Your task to perform on an android device: open app "TextNow: Call + Text Unlimited" (install if not already installed) Image 0: 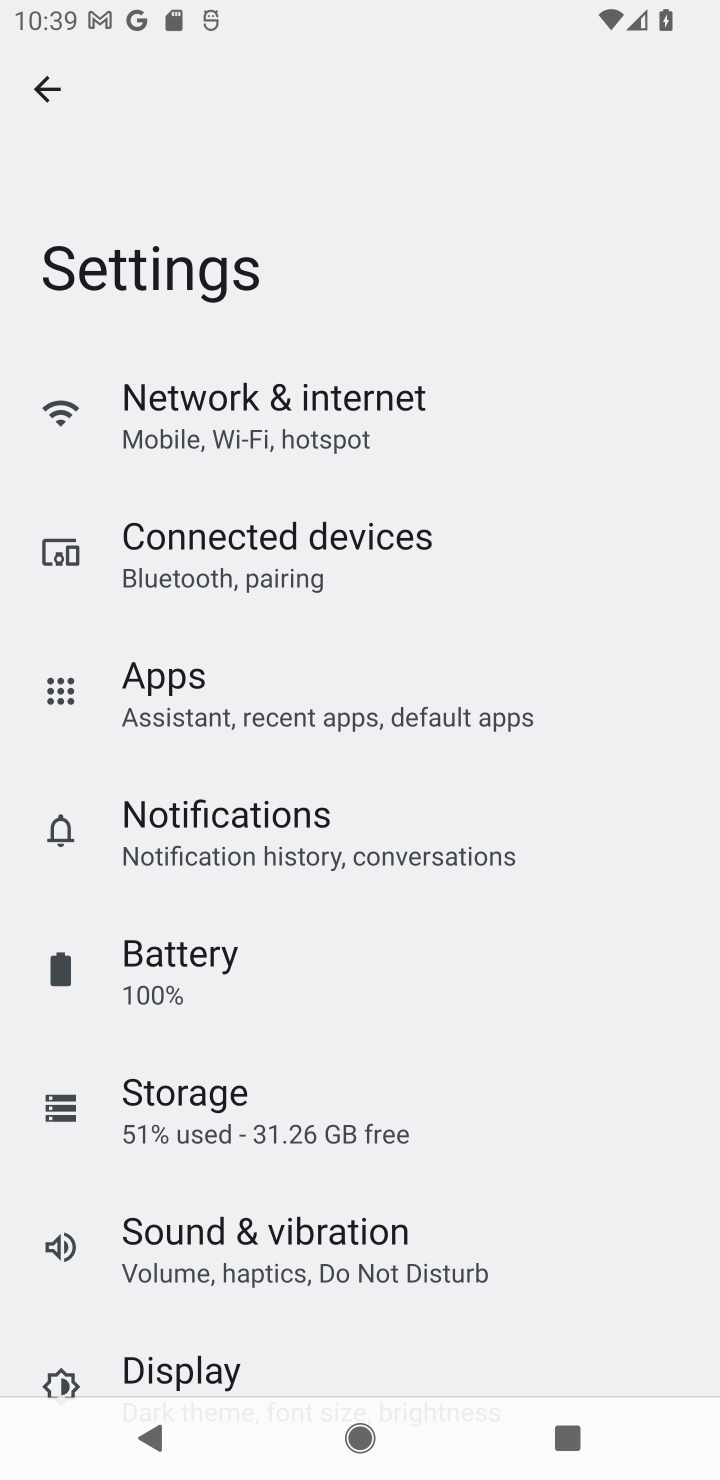
Step 0: press home button
Your task to perform on an android device: open app "TextNow: Call + Text Unlimited" (install if not already installed) Image 1: 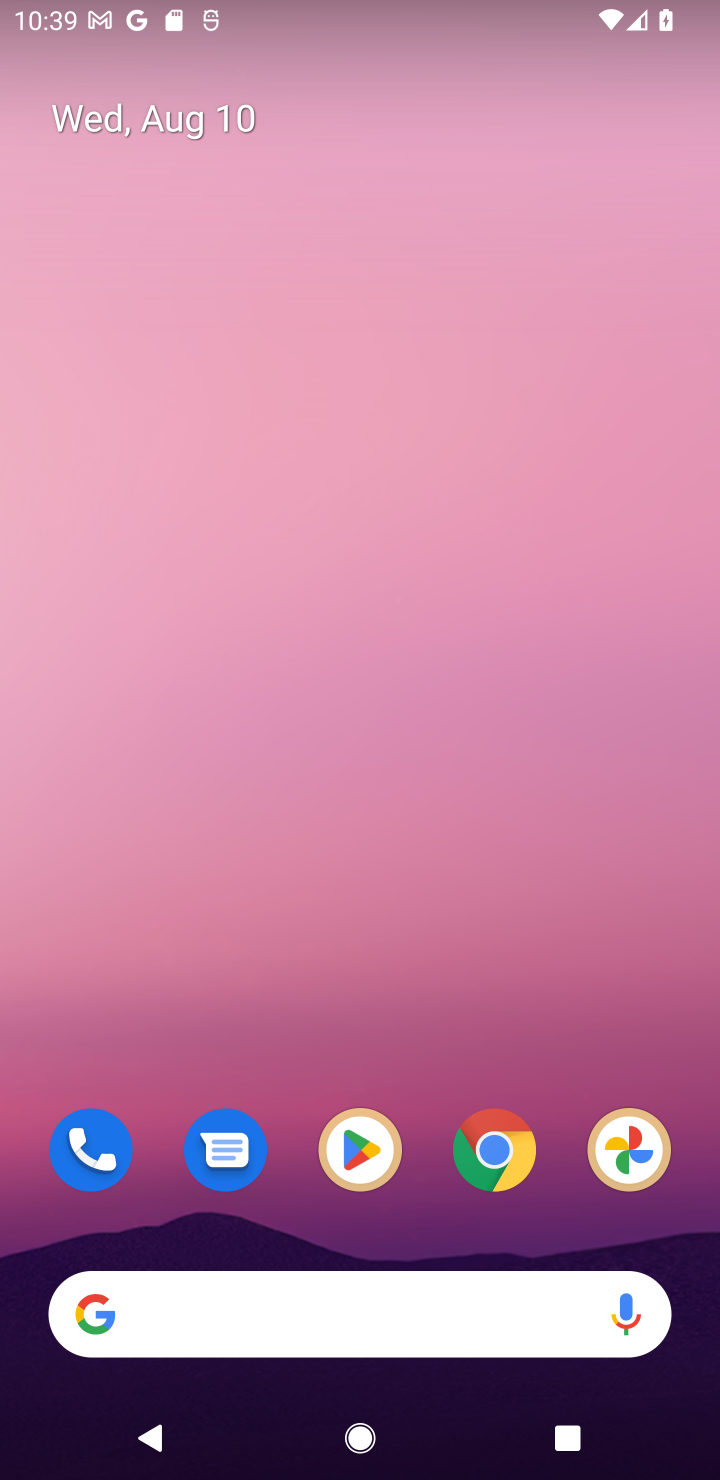
Step 1: click (358, 1140)
Your task to perform on an android device: open app "TextNow: Call + Text Unlimited" (install if not already installed) Image 2: 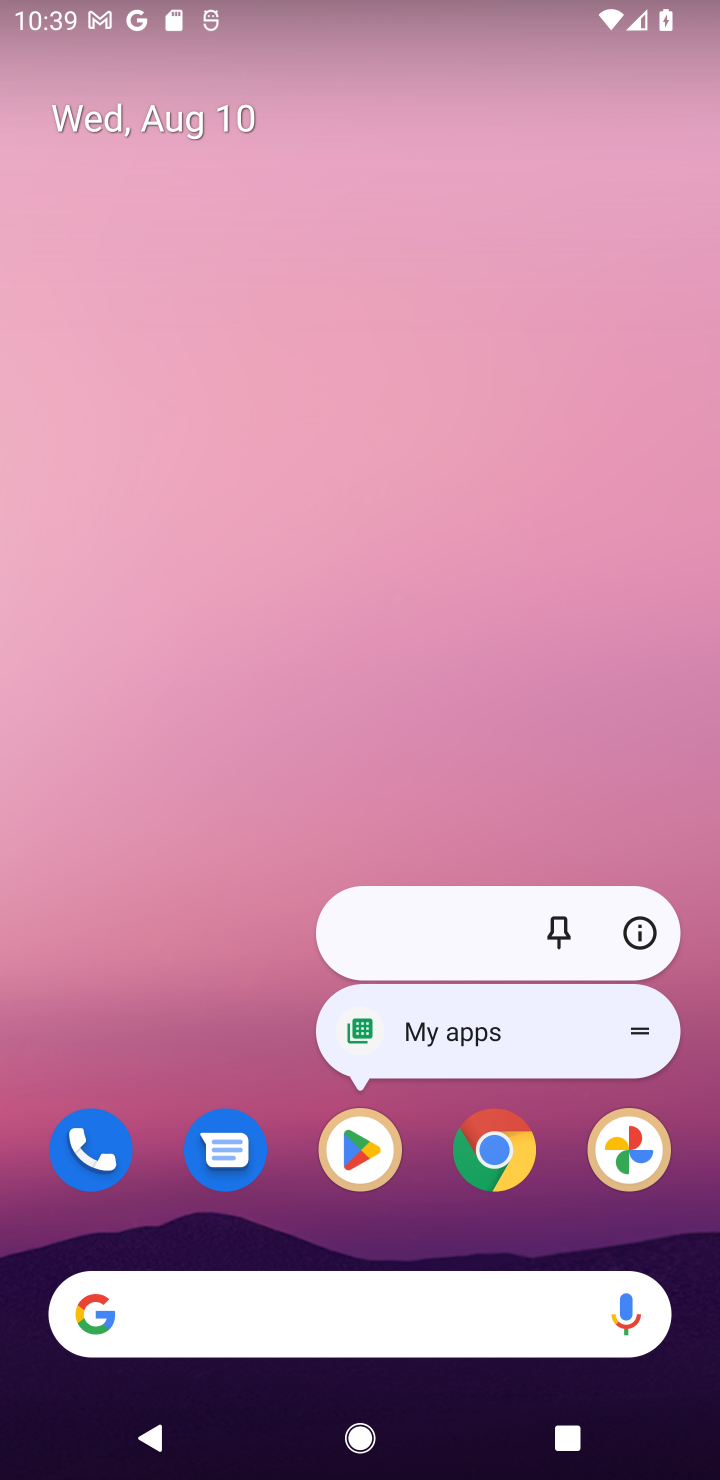
Step 2: click (358, 1140)
Your task to perform on an android device: open app "TextNow: Call + Text Unlimited" (install if not already installed) Image 3: 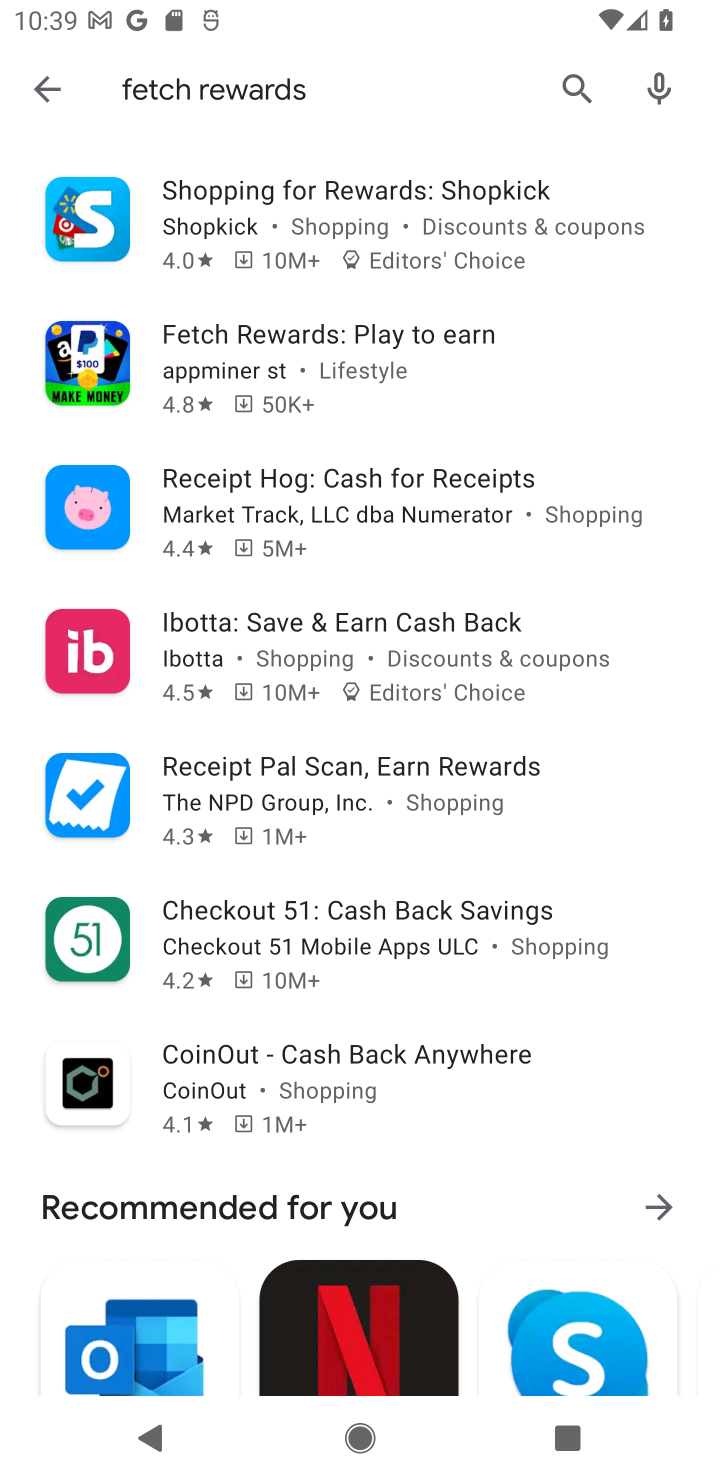
Step 3: click (571, 82)
Your task to perform on an android device: open app "TextNow: Call + Text Unlimited" (install if not already installed) Image 4: 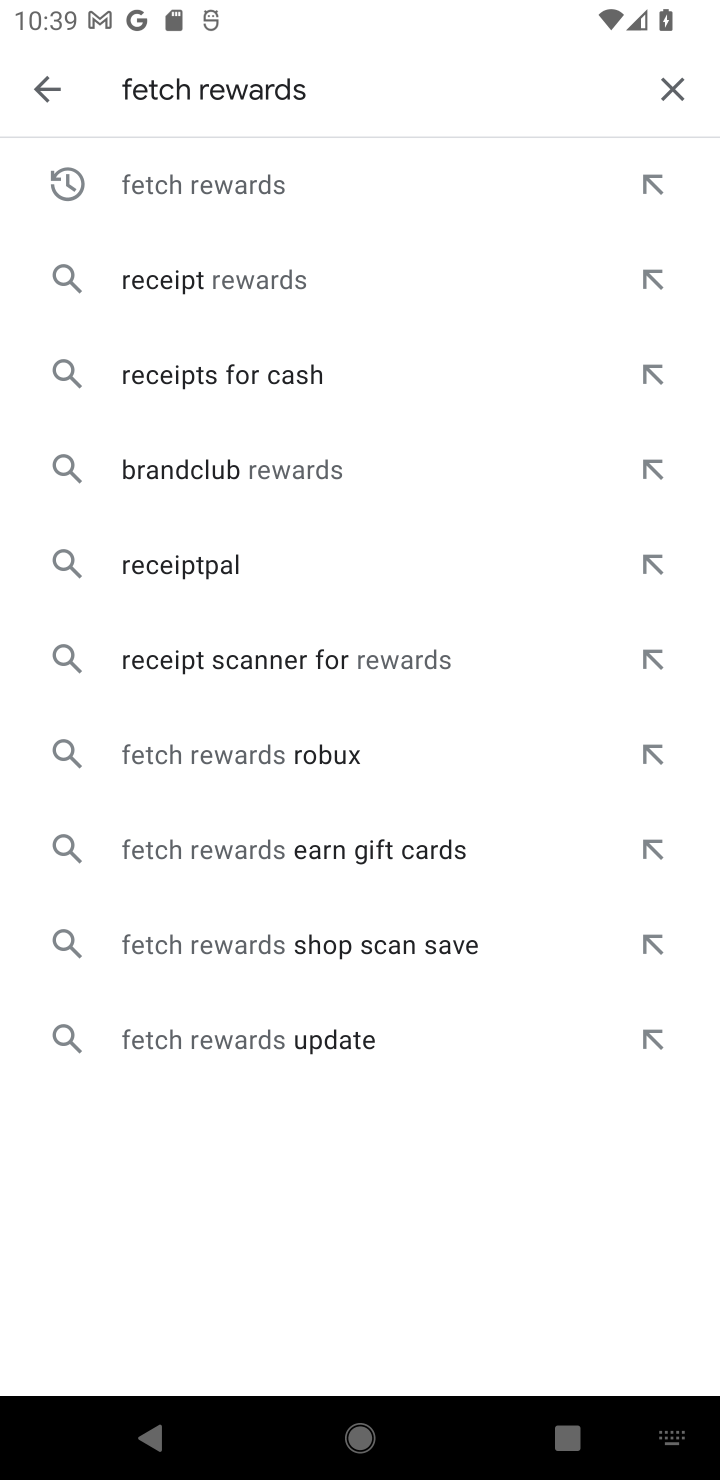
Step 4: click (659, 80)
Your task to perform on an android device: open app "TextNow: Call + Text Unlimited" (install if not already installed) Image 5: 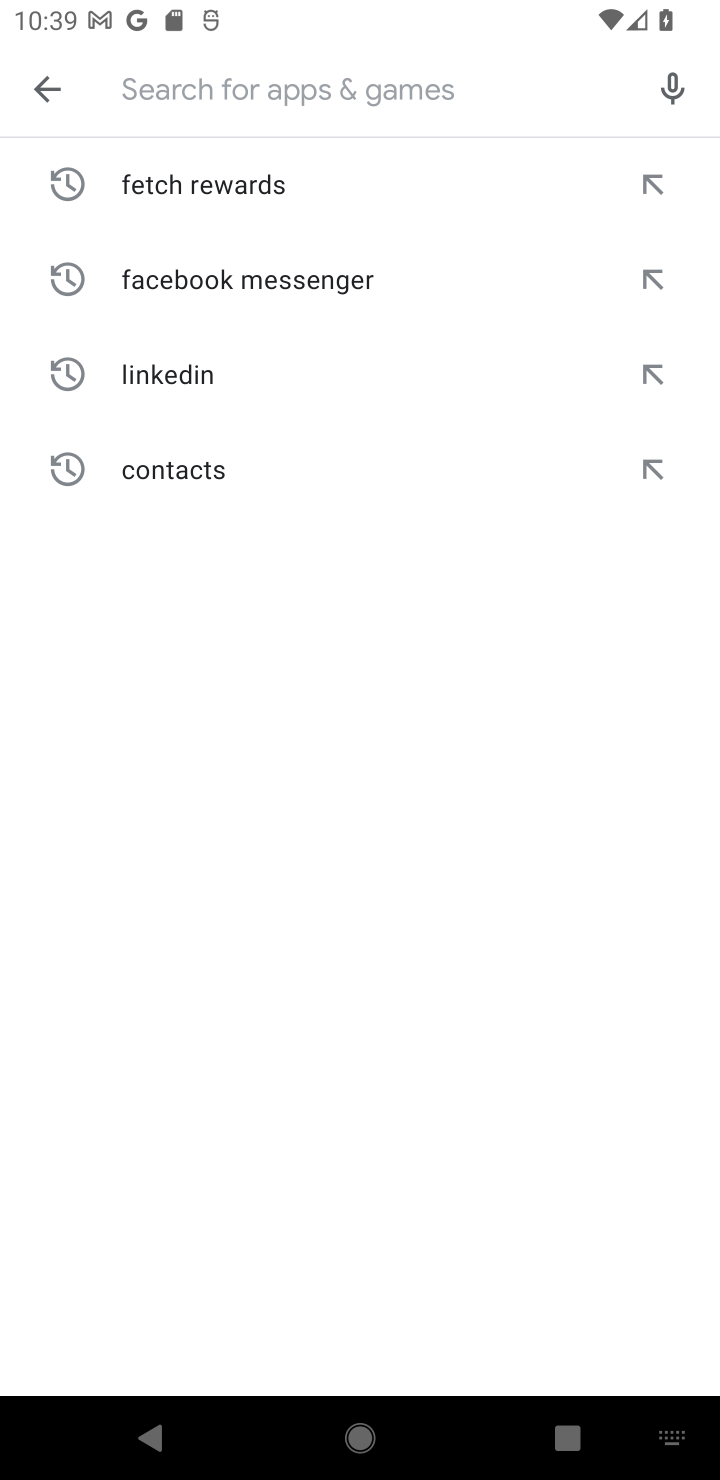
Step 5: type "TextNow: Call + Text Unlimited"
Your task to perform on an android device: open app "TextNow: Call + Text Unlimited" (install if not already installed) Image 6: 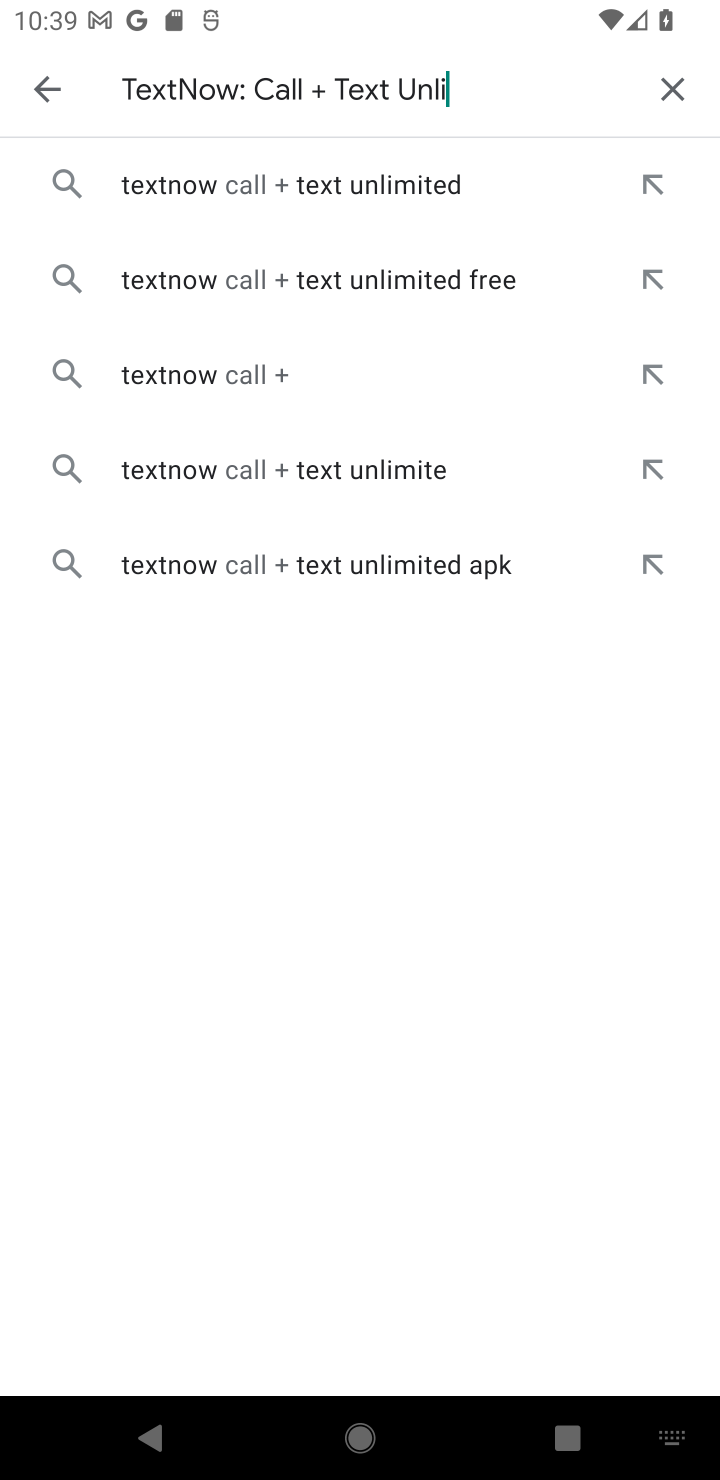
Step 6: type ""
Your task to perform on an android device: open app "TextNow: Call + Text Unlimited" (install if not already installed) Image 7: 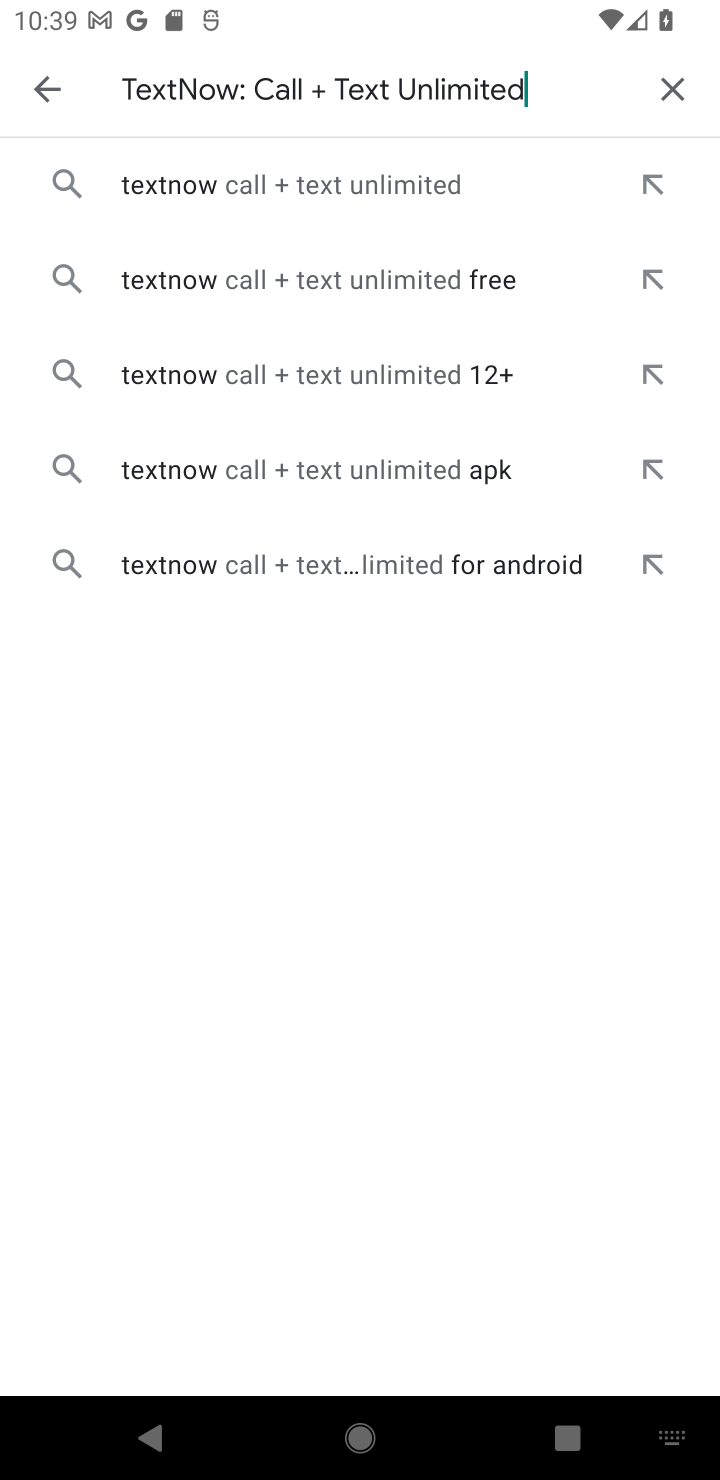
Step 7: click (277, 186)
Your task to perform on an android device: open app "TextNow: Call + Text Unlimited" (install if not already installed) Image 8: 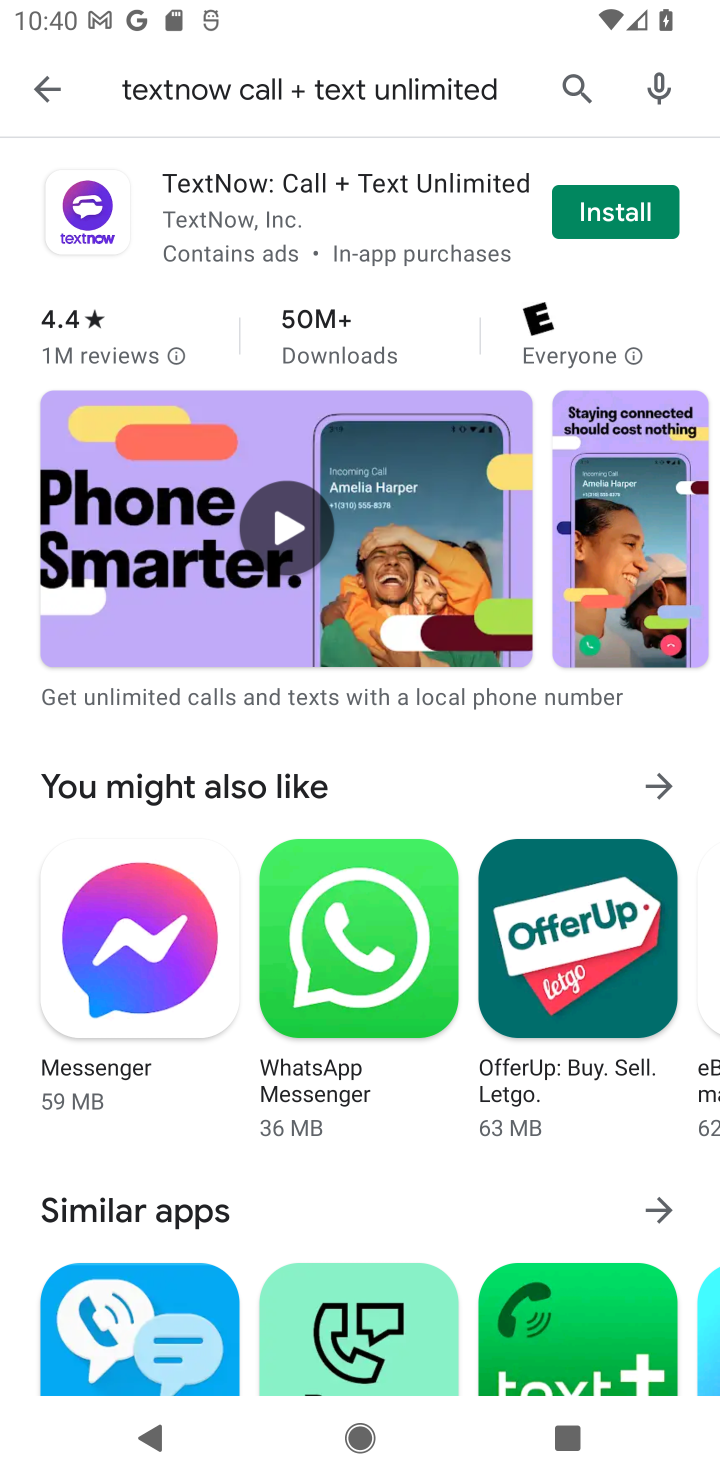
Step 8: click (649, 197)
Your task to perform on an android device: open app "TextNow: Call + Text Unlimited" (install if not already installed) Image 9: 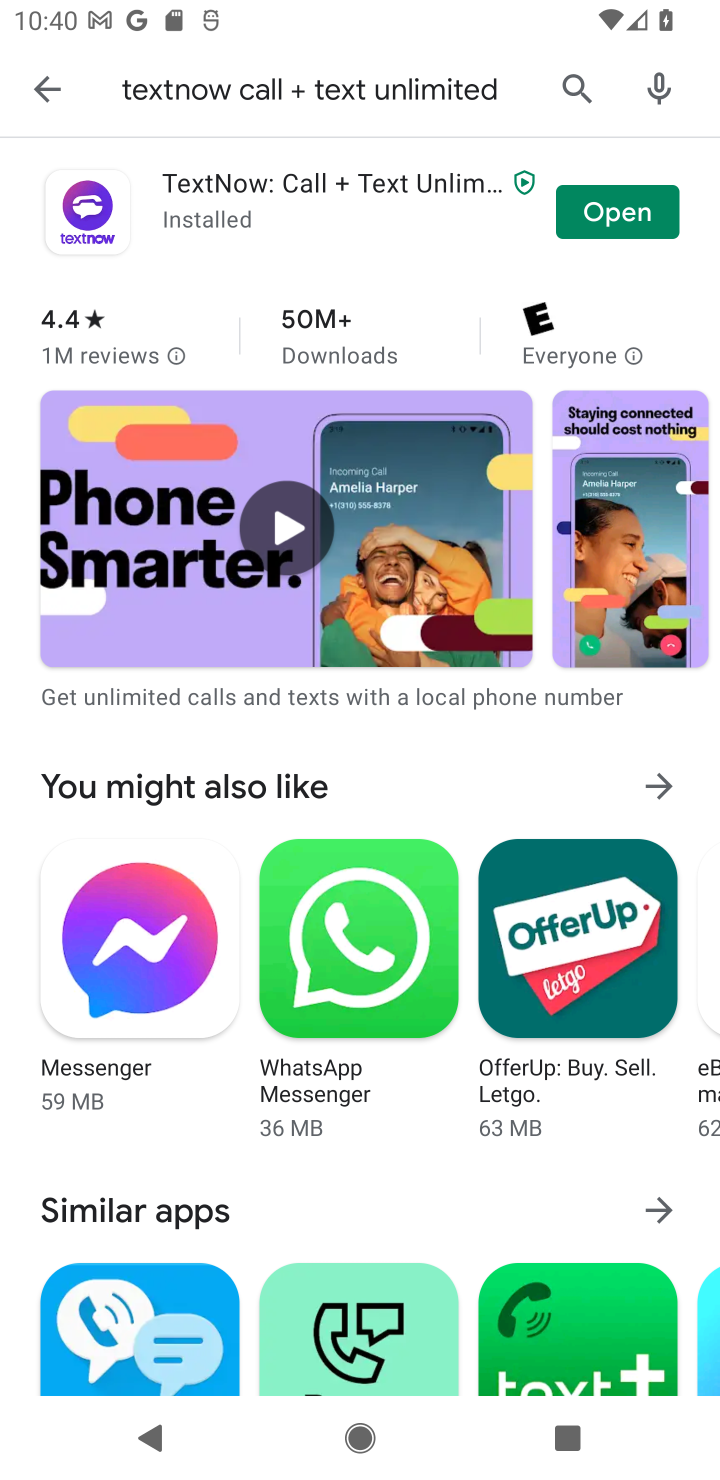
Step 9: click (633, 220)
Your task to perform on an android device: open app "TextNow: Call + Text Unlimited" (install if not already installed) Image 10: 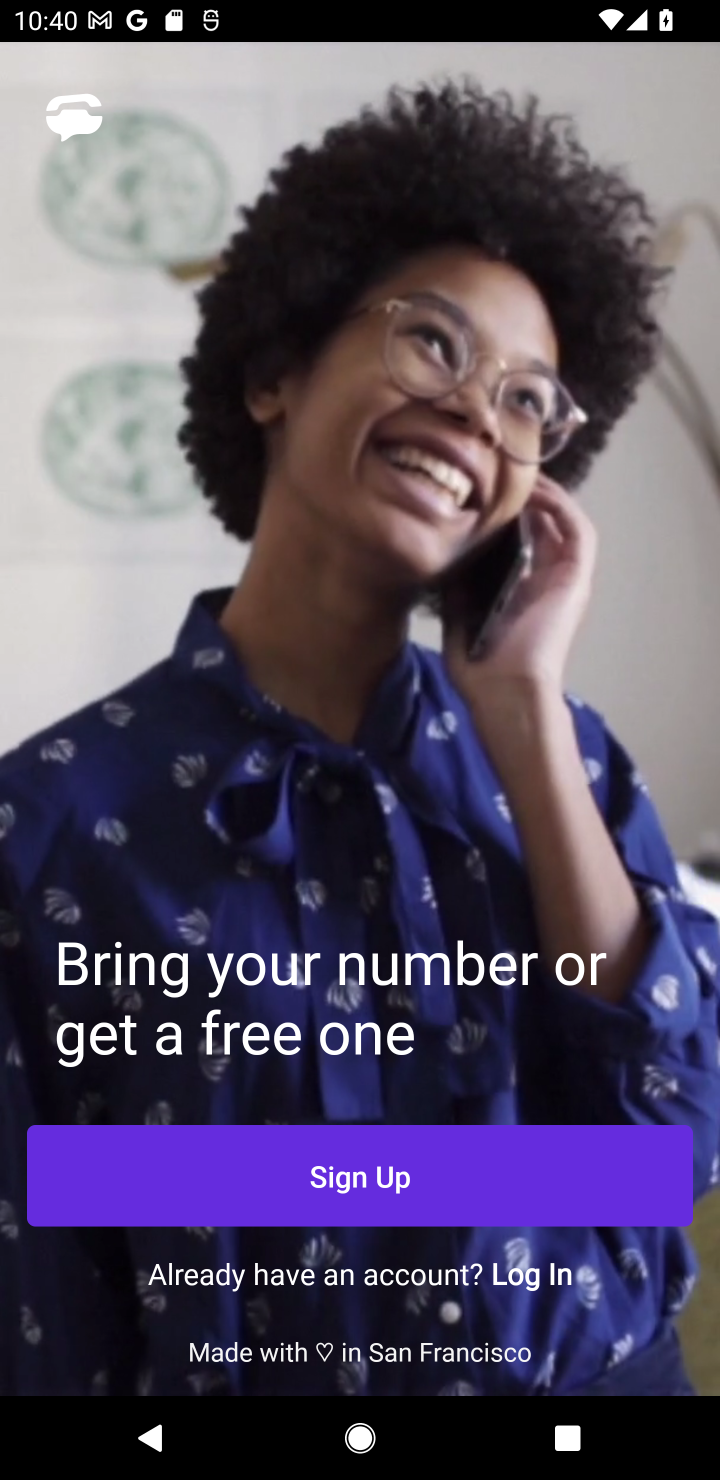
Step 10: task complete